Your task to perform on an android device: turn notification dots off Image 0: 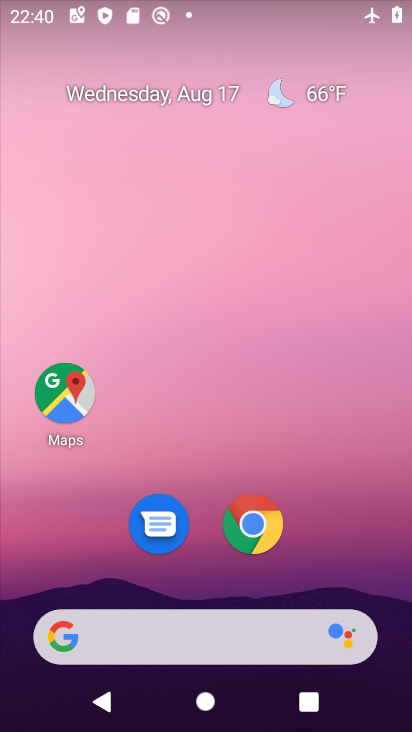
Step 0: drag from (324, 502) to (329, 0)
Your task to perform on an android device: turn notification dots off Image 1: 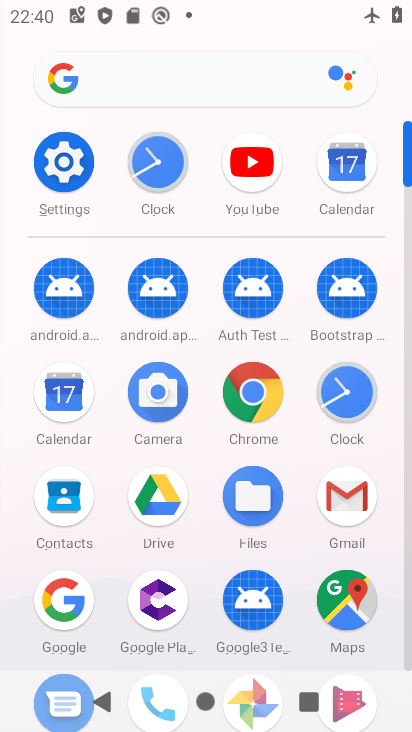
Step 1: click (69, 162)
Your task to perform on an android device: turn notification dots off Image 2: 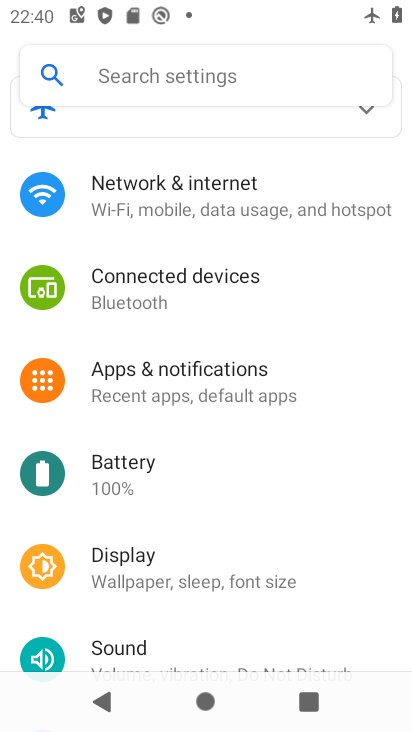
Step 2: click (205, 386)
Your task to perform on an android device: turn notification dots off Image 3: 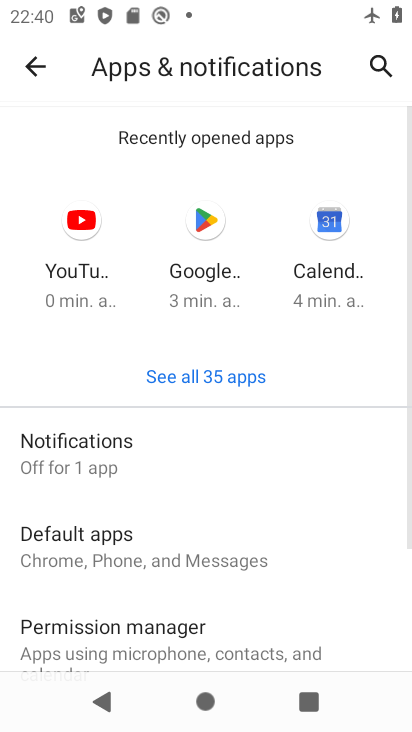
Step 3: click (114, 446)
Your task to perform on an android device: turn notification dots off Image 4: 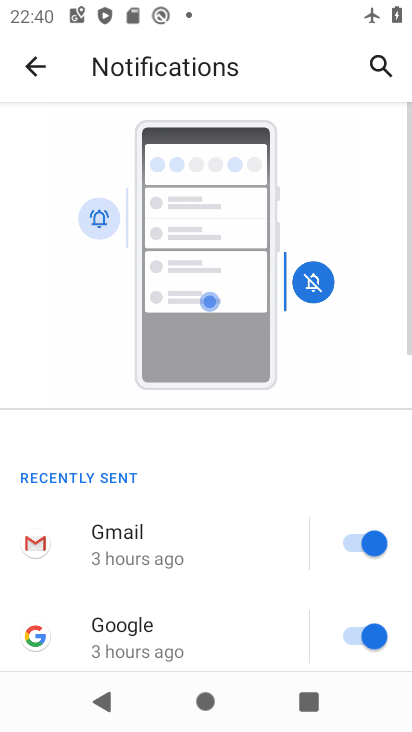
Step 4: drag from (231, 559) to (294, 9)
Your task to perform on an android device: turn notification dots off Image 5: 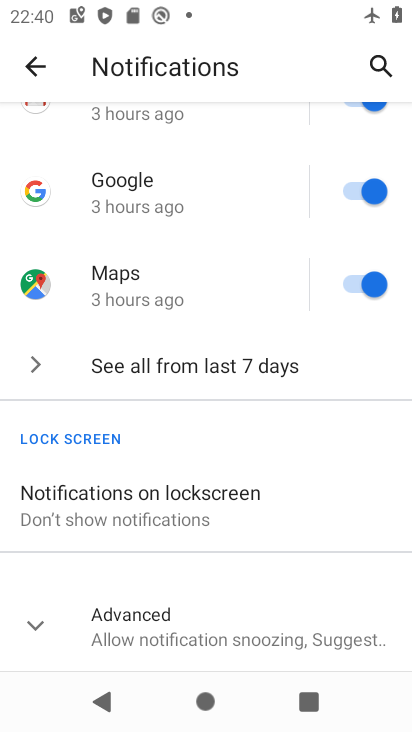
Step 5: click (36, 621)
Your task to perform on an android device: turn notification dots off Image 6: 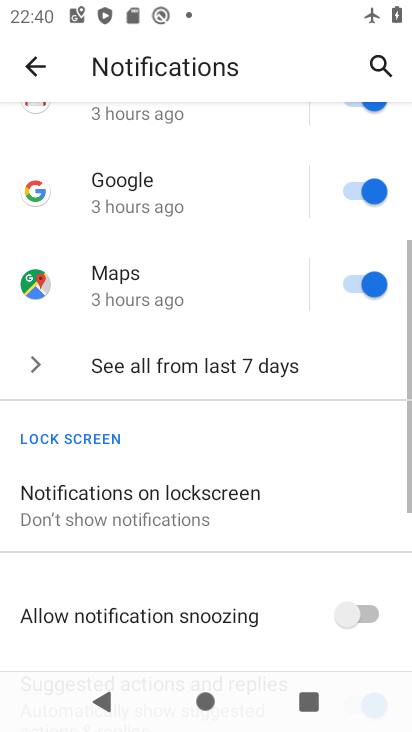
Step 6: drag from (226, 504) to (291, 26)
Your task to perform on an android device: turn notification dots off Image 7: 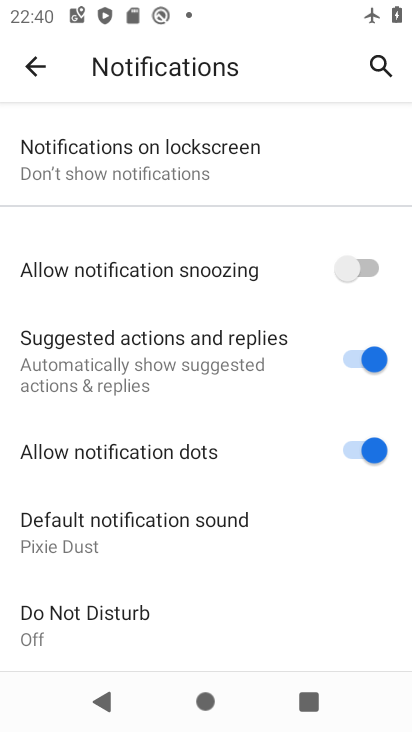
Step 7: click (354, 445)
Your task to perform on an android device: turn notification dots off Image 8: 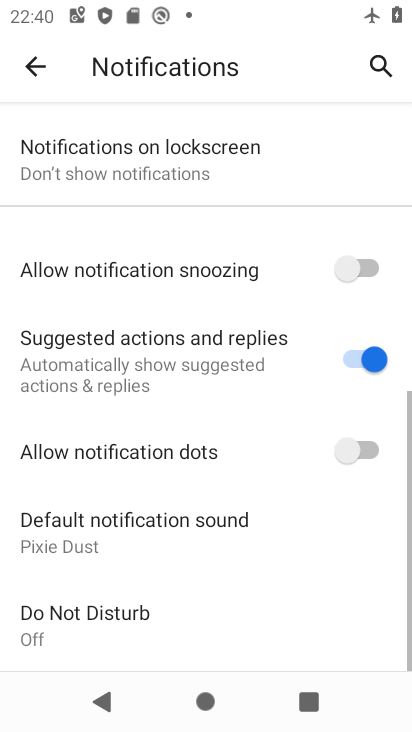
Step 8: task complete